Your task to perform on an android device: Do I have any events today? Image 0: 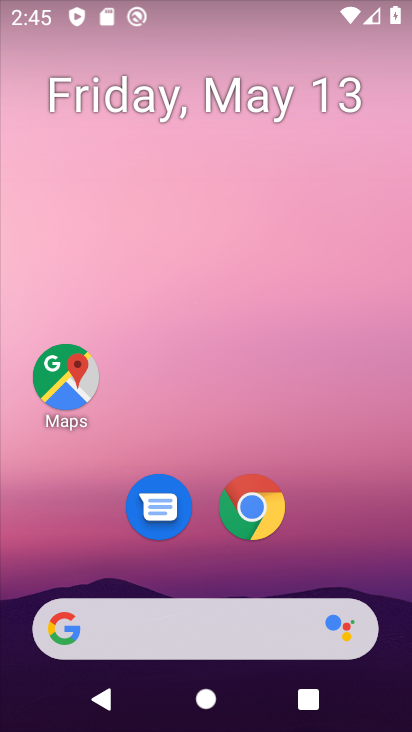
Step 0: drag from (314, 495) to (276, 2)
Your task to perform on an android device: Do I have any events today? Image 1: 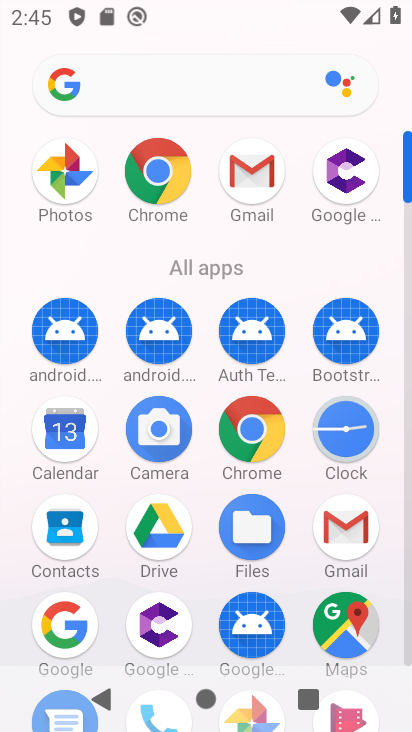
Step 1: click (62, 437)
Your task to perform on an android device: Do I have any events today? Image 2: 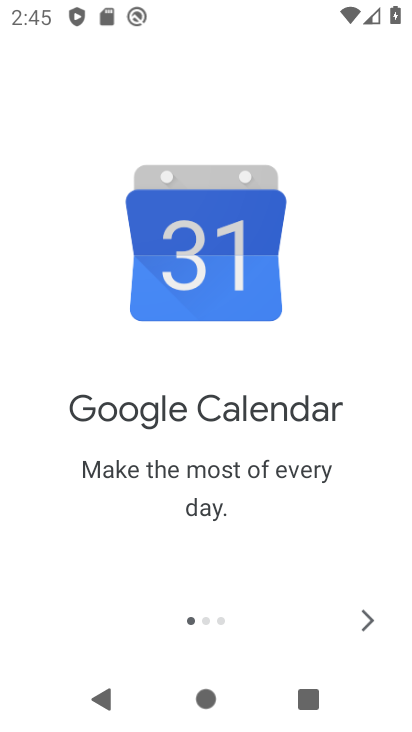
Step 2: click (361, 623)
Your task to perform on an android device: Do I have any events today? Image 3: 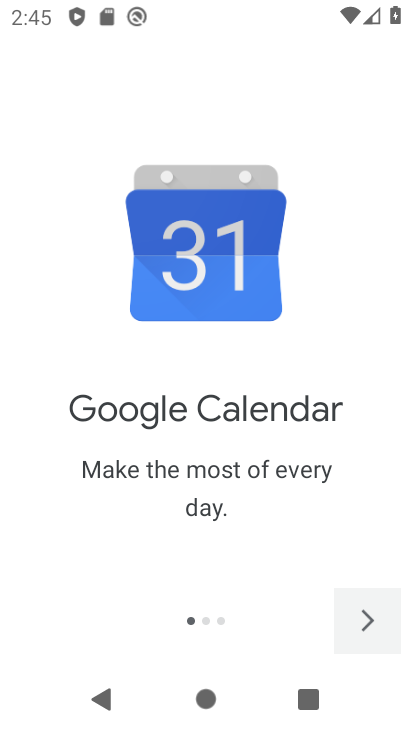
Step 3: click (361, 623)
Your task to perform on an android device: Do I have any events today? Image 4: 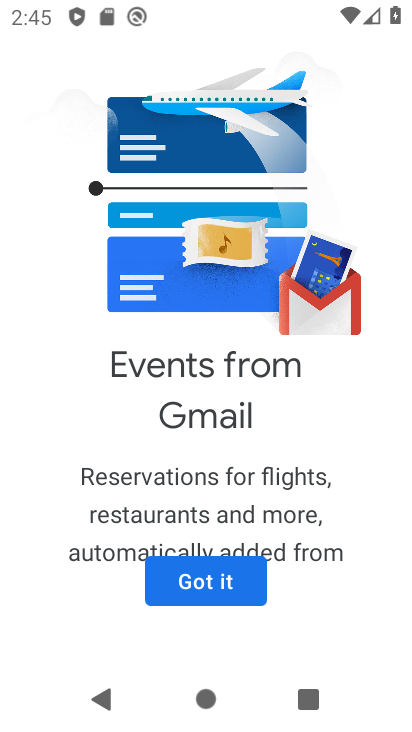
Step 4: click (361, 623)
Your task to perform on an android device: Do I have any events today? Image 5: 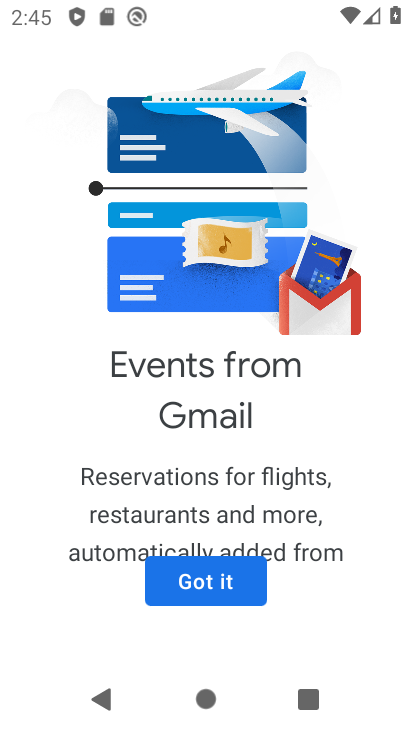
Step 5: click (151, 553)
Your task to perform on an android device: Do I have any events today? Image 6: 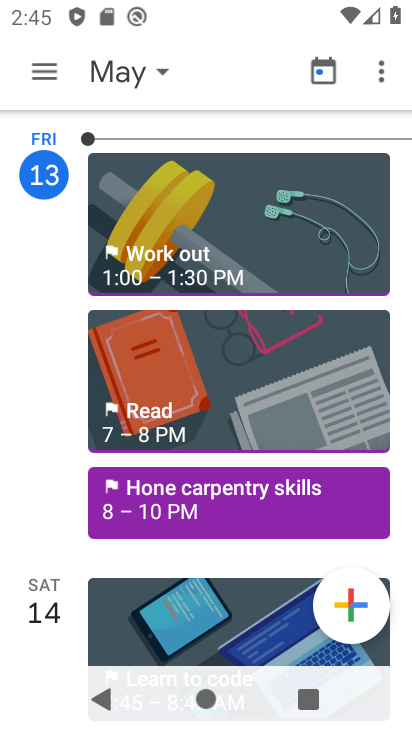
Step 6: click (41, 61)
Your task to perform on an android device: Do I have any events today? Image 7: 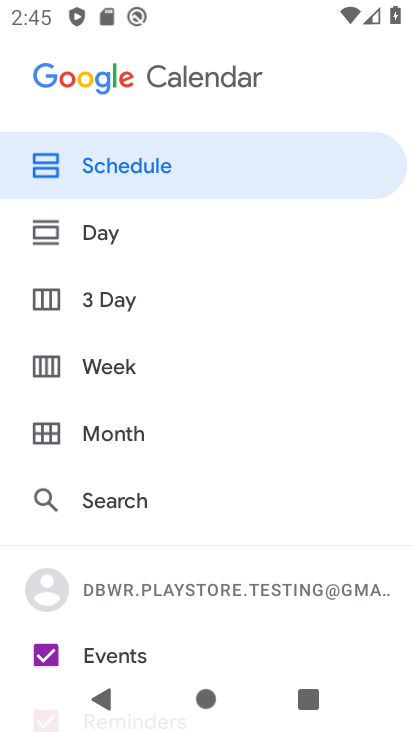
Step 7: click (169, 170)
Your task to perform on an android device: Do I have any events today? Image 8: 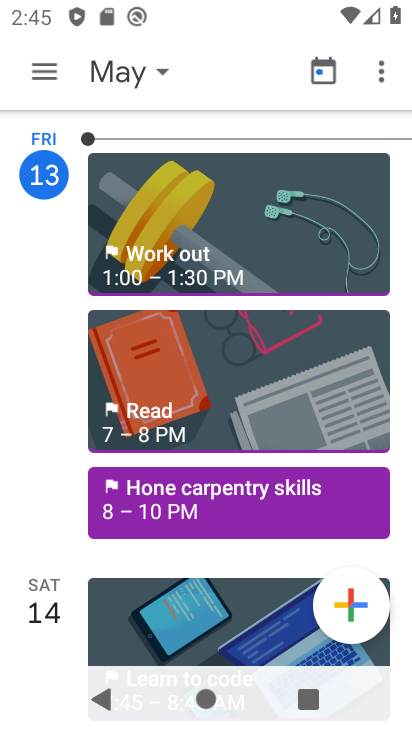
Step 8: task complete